Your task to perform on an android device: Open the calendar app, open the side menu, and click the "Day" option Image 0: 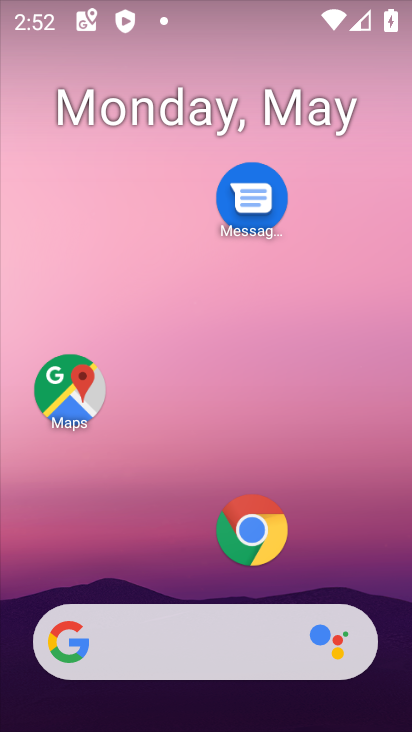
Step 0: drag from (124, 572) to (236, 67)
Your task to perform on an android device: Open the calendar app, open the side menu, and click the "Day" option Image 1: 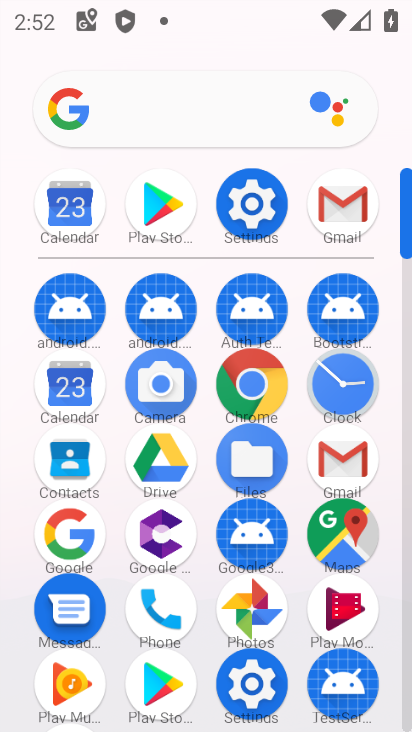
Step 1: click (49, 387)
Your task to perform on an android device: Open the calendar app, open the side menu, and click the "Day" option Image 2: 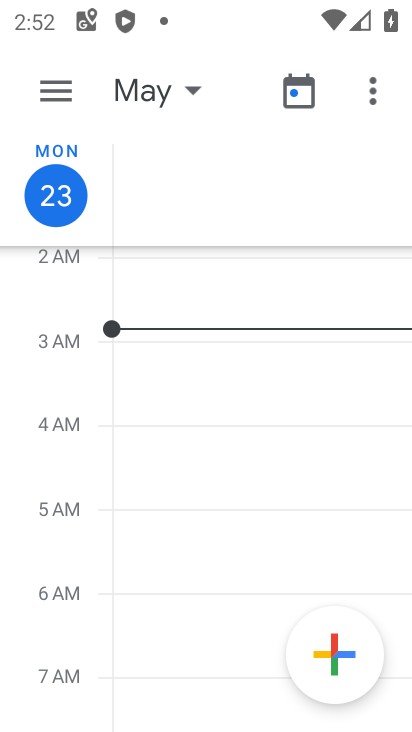
Step 2: click (60, 84)
Your task to perform on an android device: Open the calendar app, open the side menu, and click the "Day" option Image 3: 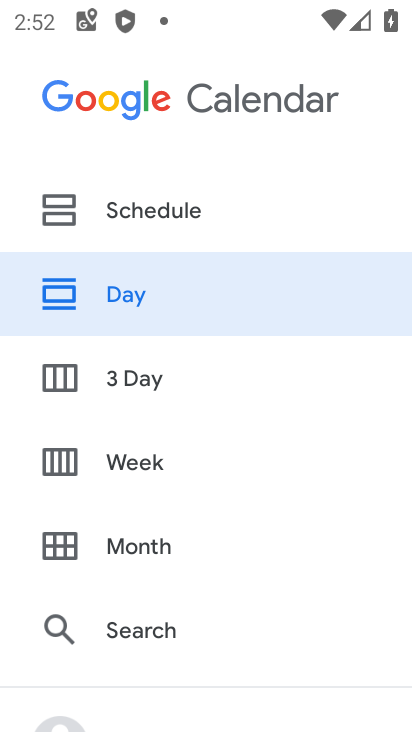
Step 3: click (125, 304)
Your task to perform on an android device: Open the calendar app, open the side menu, and click the "Day" option Image 4: 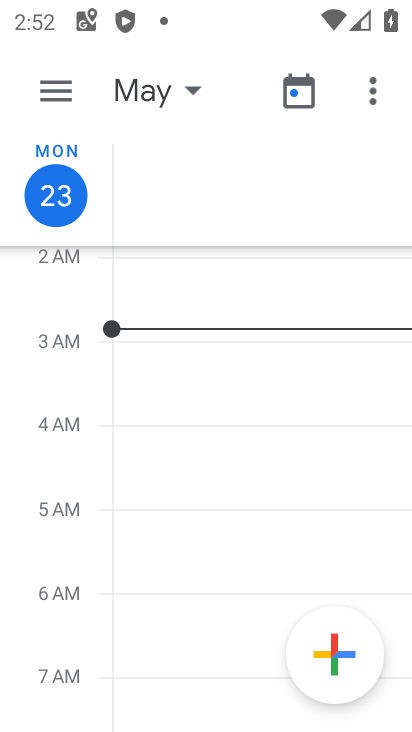
Step 4: task complete